Your task to perform on an android device: Search for good Chinese restaurants Image 0: 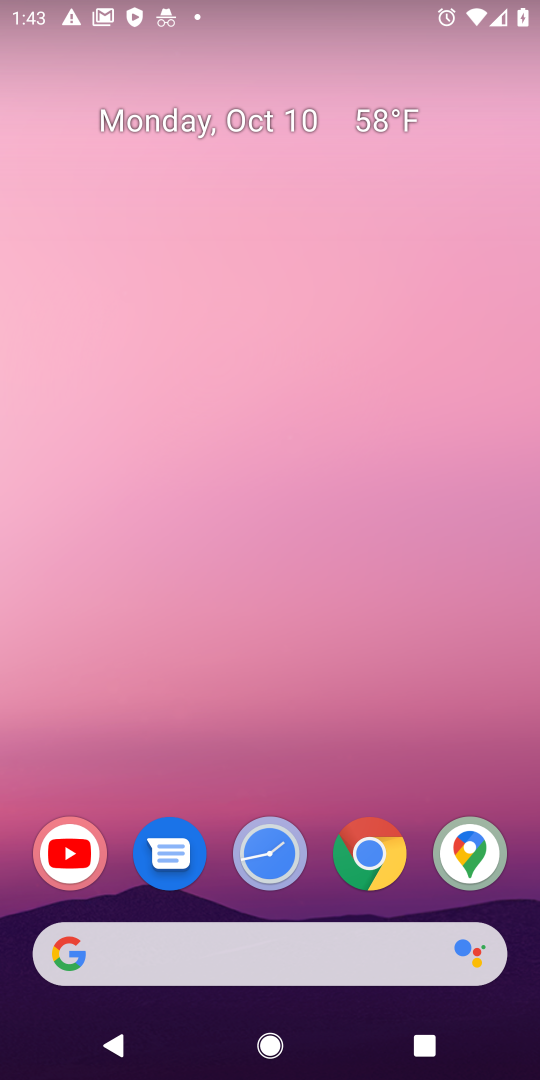
Step 0: click (351, 861)
Your task to perform on an android device: Search for good Chinese restaurants Image 1: 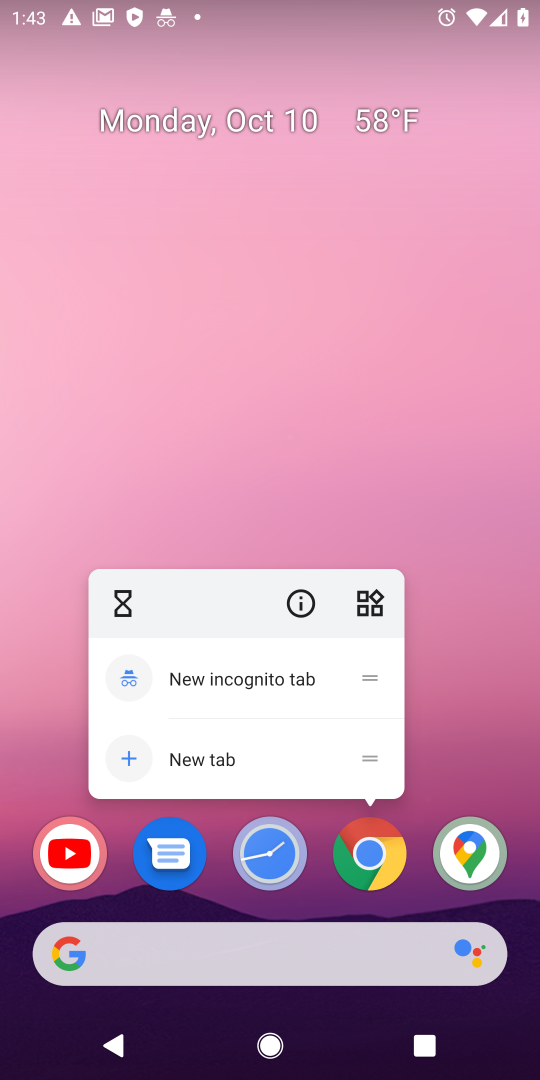
Step 1: click (351, 861)
Your task to perform on an android device: Search for good Chinese restaurants Image 2: 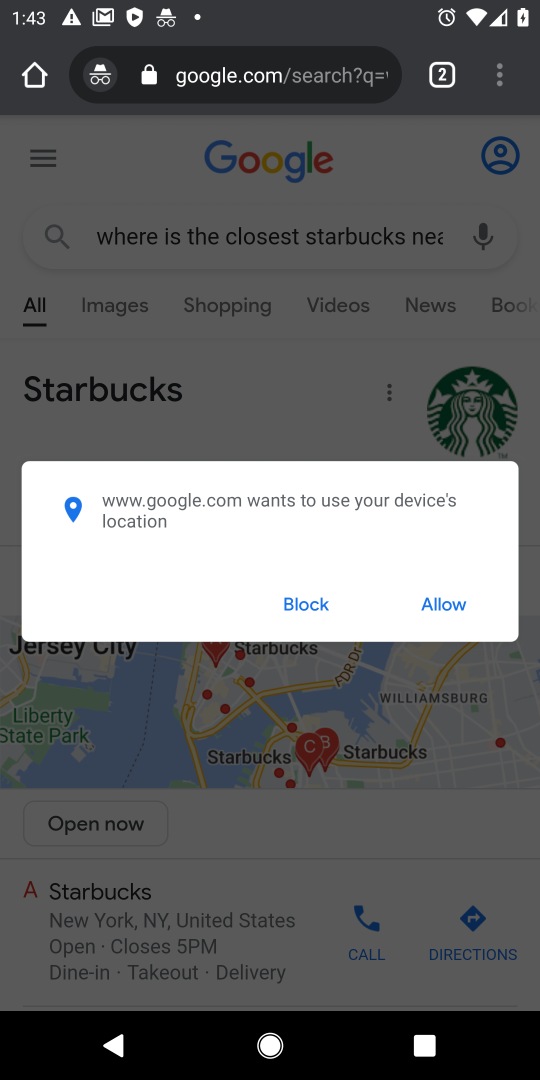
Step 2: click (452, 608)
Your task to perform on an android device: Search for good Chinese restaurants Image 3: 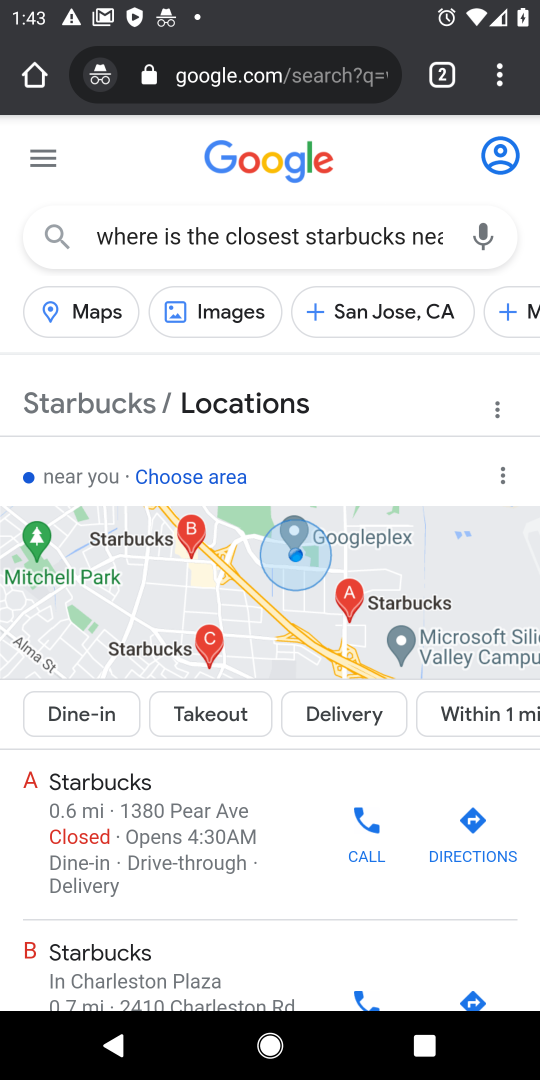
Step 3: click (354, 230)
Your task to perform on an android device: Search for good Chinese restaurants Image 4: 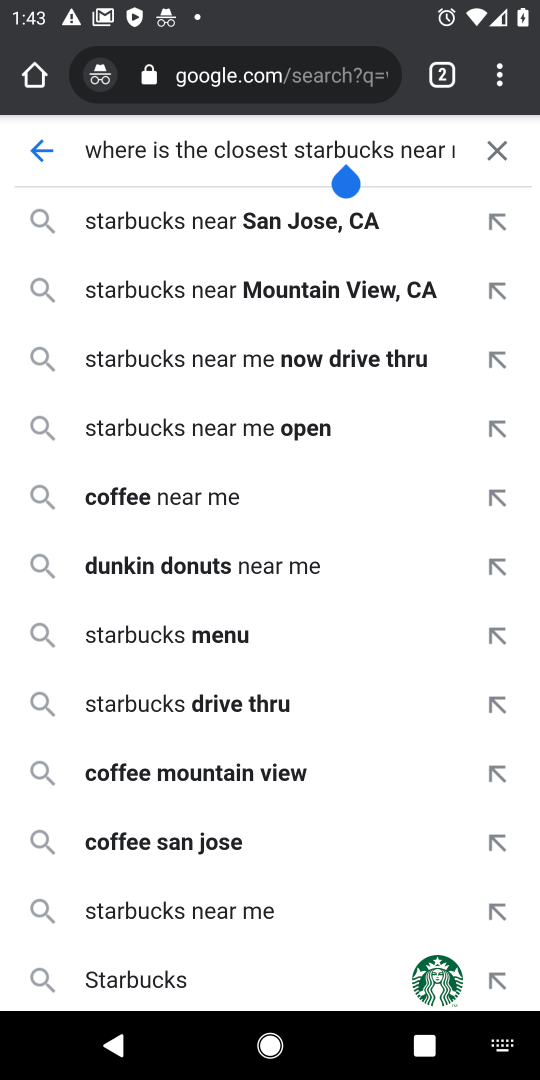
Step 4: click (493, 144)
Your task to perform on an android device: Search for good Chinese restaurants Image 5: 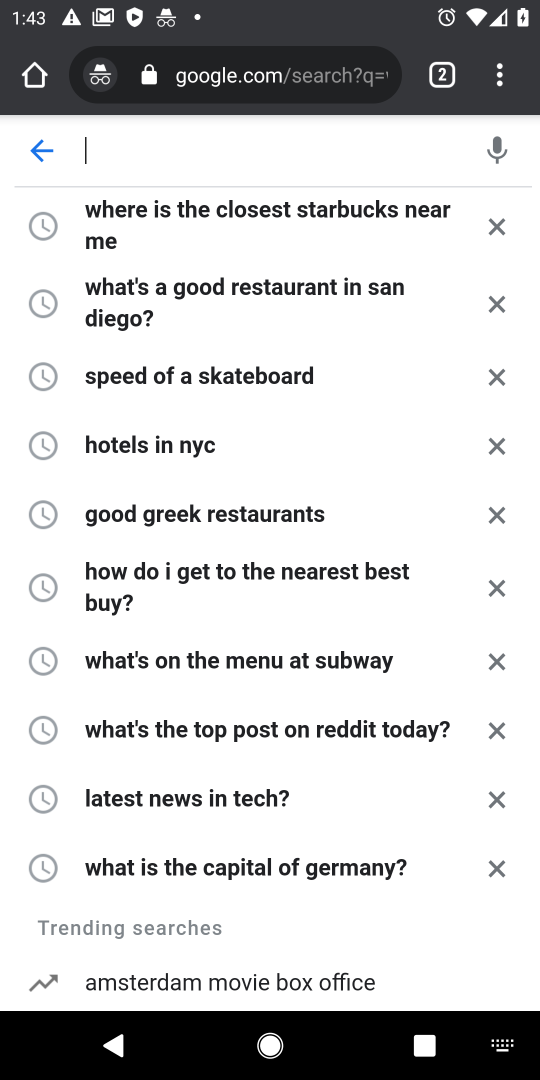
Step 5: type "good Chinese restaurants"
Your task to perform on an android device: Search for good Chinese restaurants Image 6: 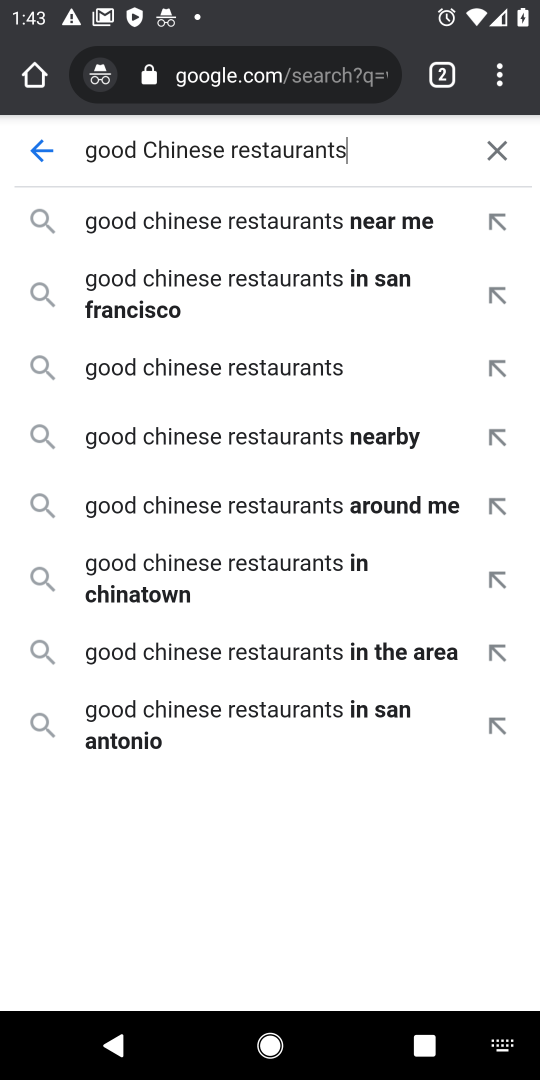
Step 6: press enter
Your task to perform on an android device: Search for good Chinese restaurants Image 7: 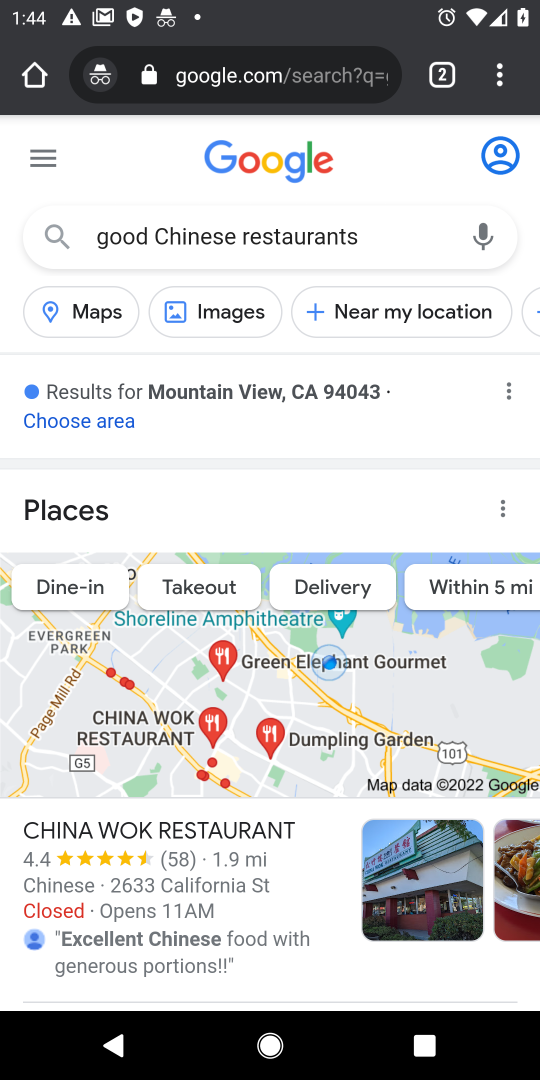
Step 7: task complete